Your task to perform on an android device: Open display settings Image 0: 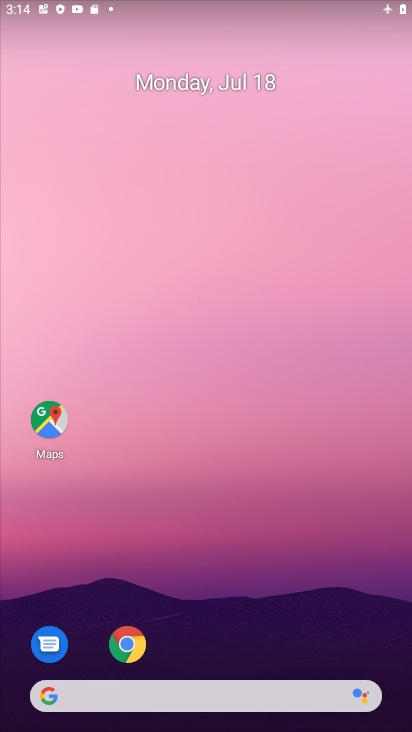
Step 0: drag from (382, 653) to (326, 89)
Your task to perform on an android device: Open display settings Image 1: 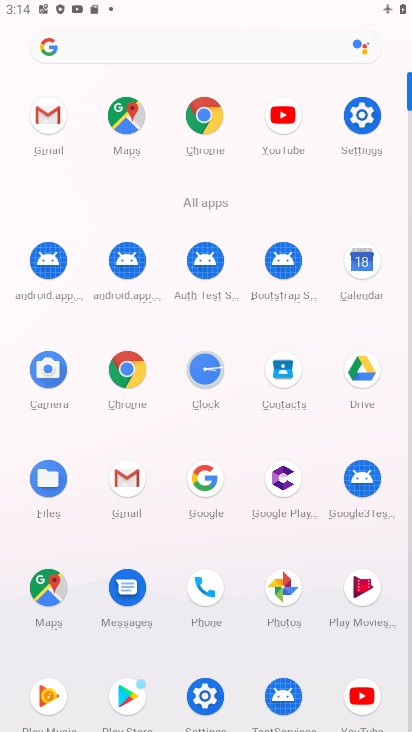
Step 1: click (204, 699)
Your task to perform on an android device: Open display settings Image 2: 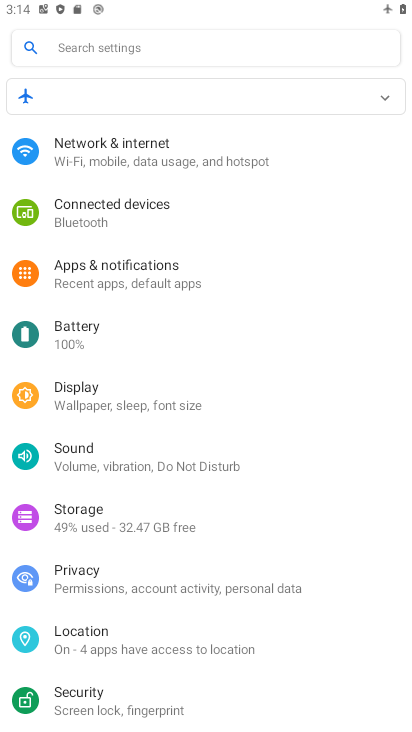
Step 2: click (88, 394)
Your task to perform on an android device: Open display settings Image 3: 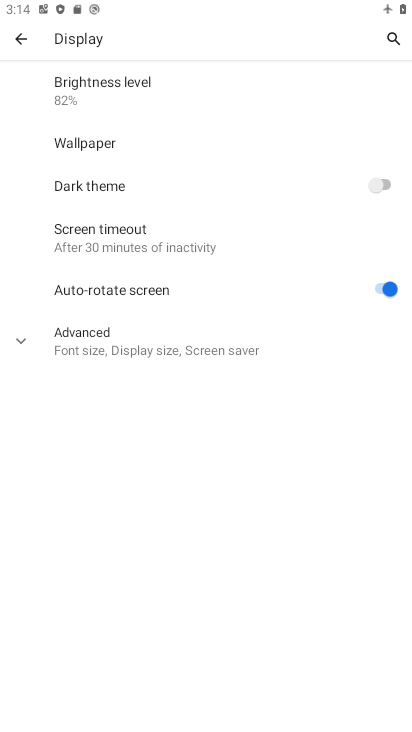
Step 3: click (17, 343)
Your task to perform on an android device: Open display settings Image 4: 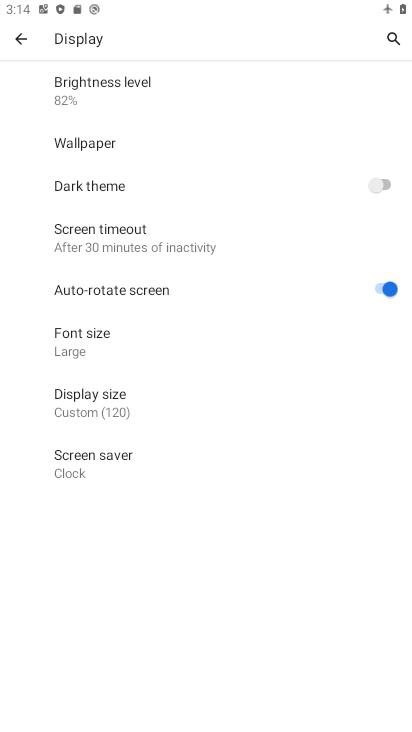
Step 4: task complete